Your task to perform on an android device: turn notification dots off Image 0: 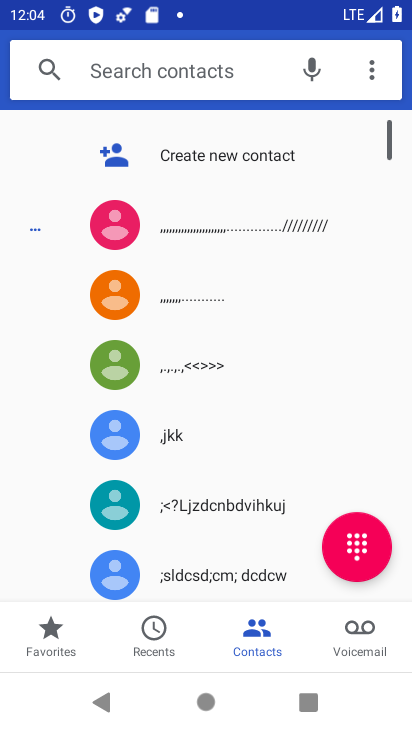
Step 0: press home button
Your task to perform on an android device: turn notification dots off Image 1: 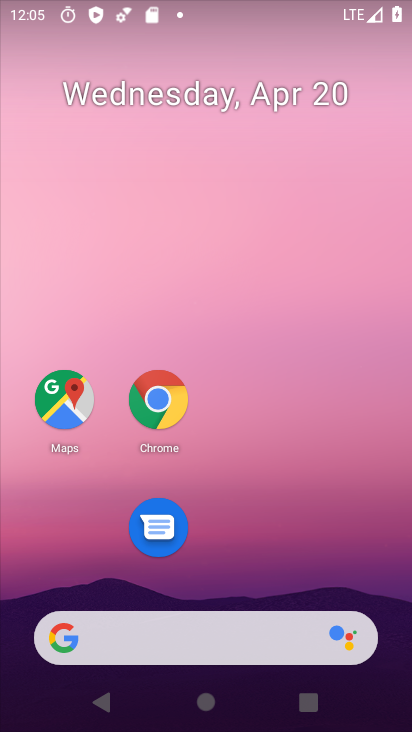
Step 1: drag from (288, 669) to (214, 276)
Your task to perform on an android device: turn notification dots off Image 2: 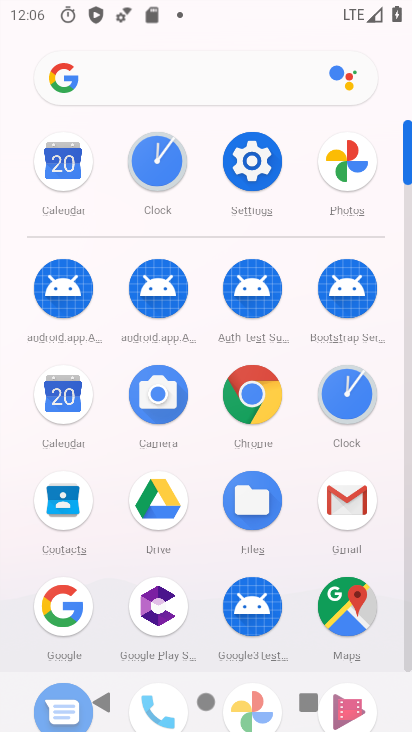
Step 2: click (250, 177)
Your task to perform on an android device: turn notification dots off Image 3: 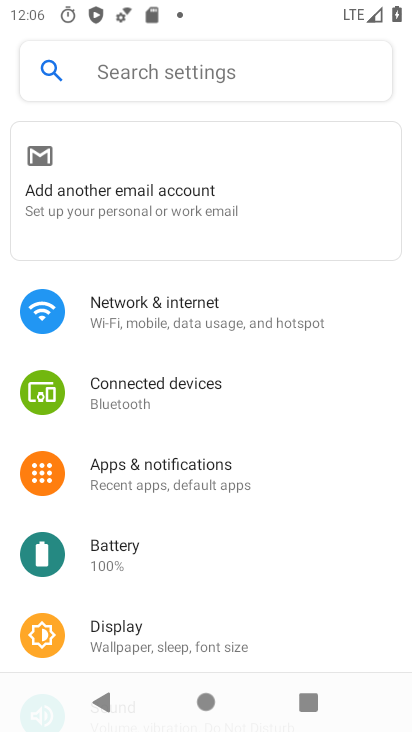
Step 3: click (172, 57)
Your task to perform on an android device: turn notification dots off Image 4: 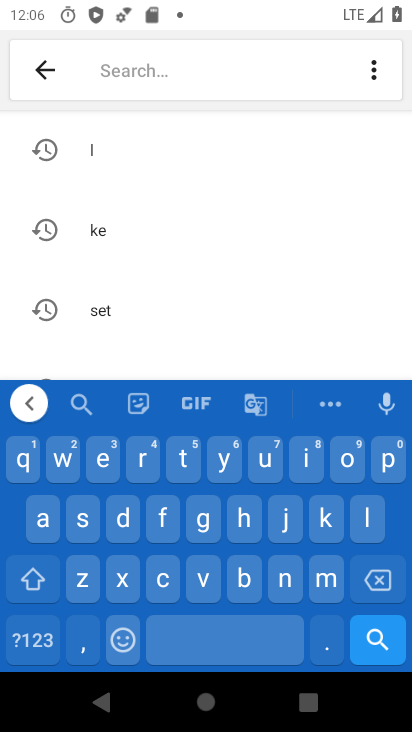
Step 4: click (123, 520)
Your task to perform on an android device: turn notification dots off Image 5: 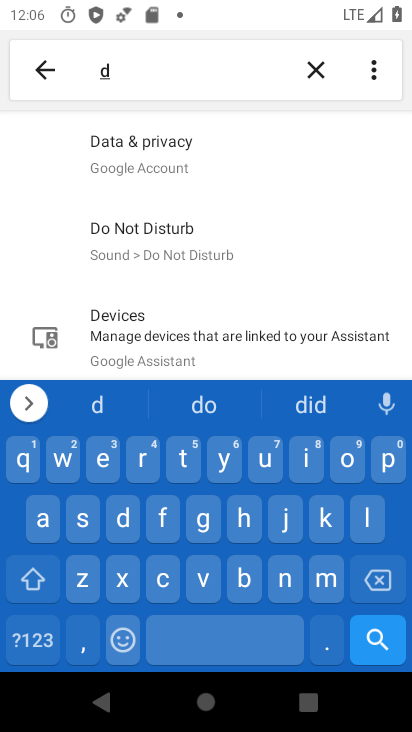
Step 5: click (348, 452)
Your task to perform on an android device: turn notification dots off Image 6: 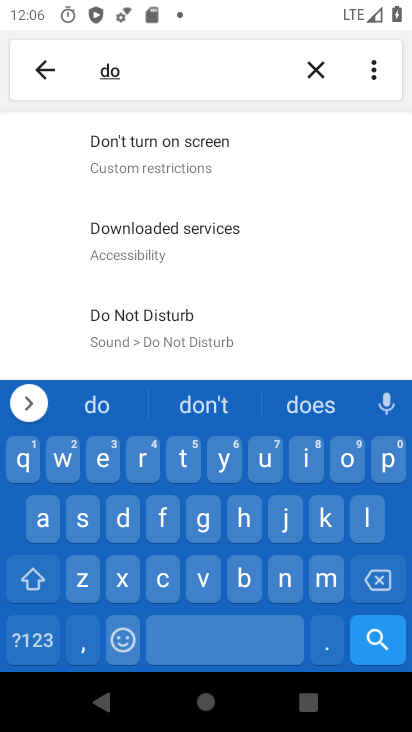
Step 6: click (175, 459)
Your task to perform on an android device: turn notification dots off Image 7: 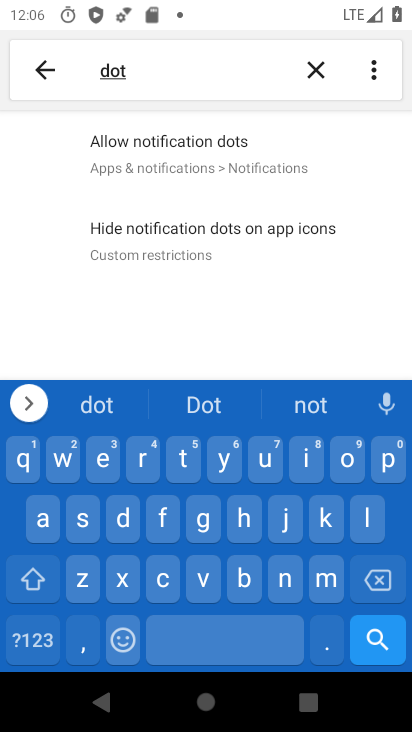
Step 7: click (219, 168)
Your task to perform on an android device: turn notification dots off Image 8: 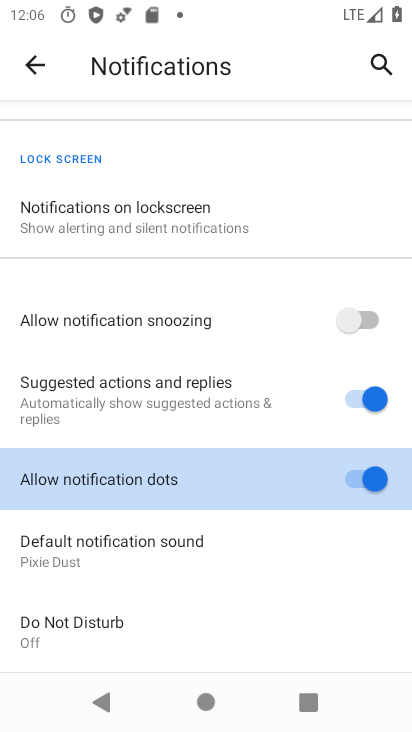
Step 8: click (327, 478)
Your task to perform on an android device: turn notification dots off Image 9: 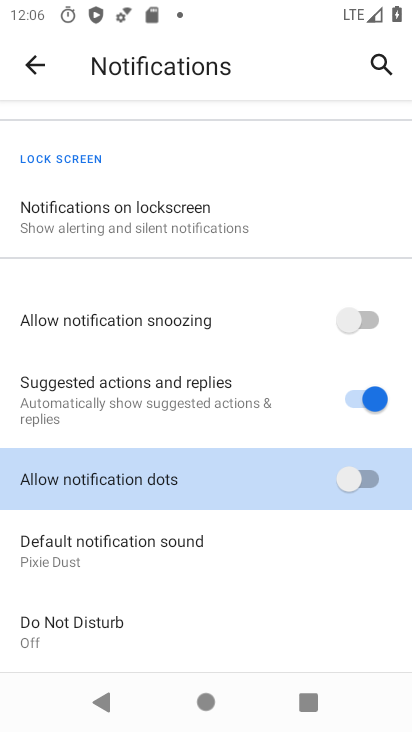
Step 9: task complete